Your task to perform on an android device: Go to eBay Image 0: 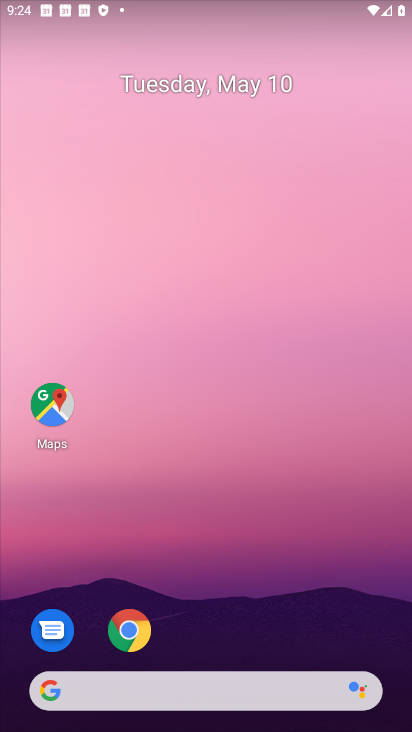
Step 0: click (273, 693)
Your task to perform on an android device: Go to eBay Image 1: 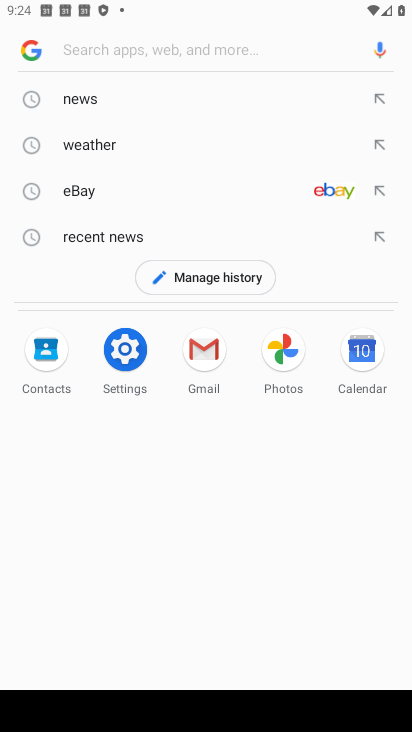
Step 1: click (333, 195)
Your task to perform on an android device: Go to eBay Image 2: 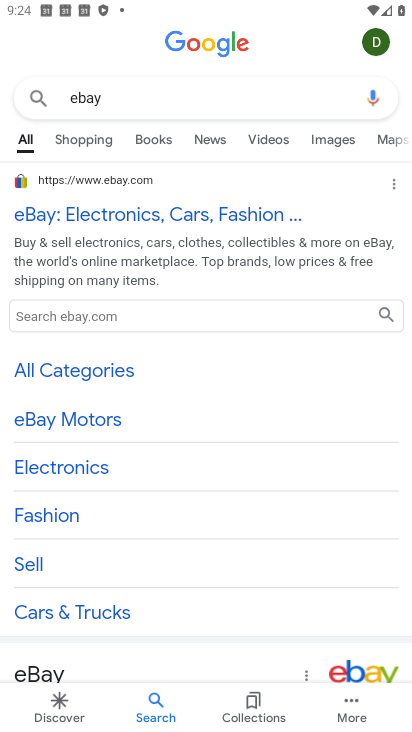
Step 2: click (117, 212)
Your task to perform on an android device: Go to eBay Image 3: 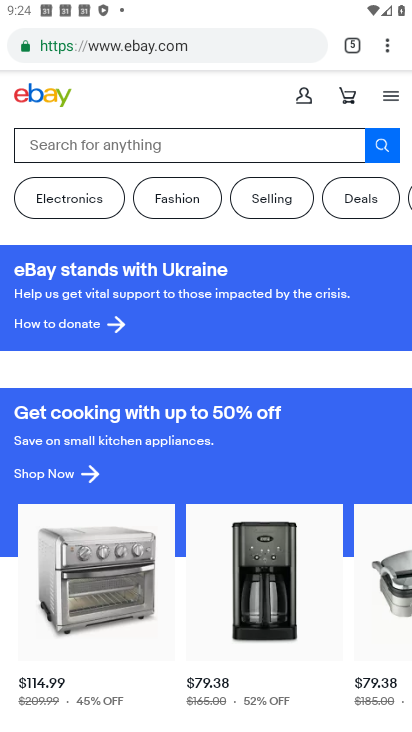
Step 3: task complete